Your task to perform on an android device: Search for rayovac triple a on newegg.com, select the first entry, add it to the cart, then select checkout. Image 0: 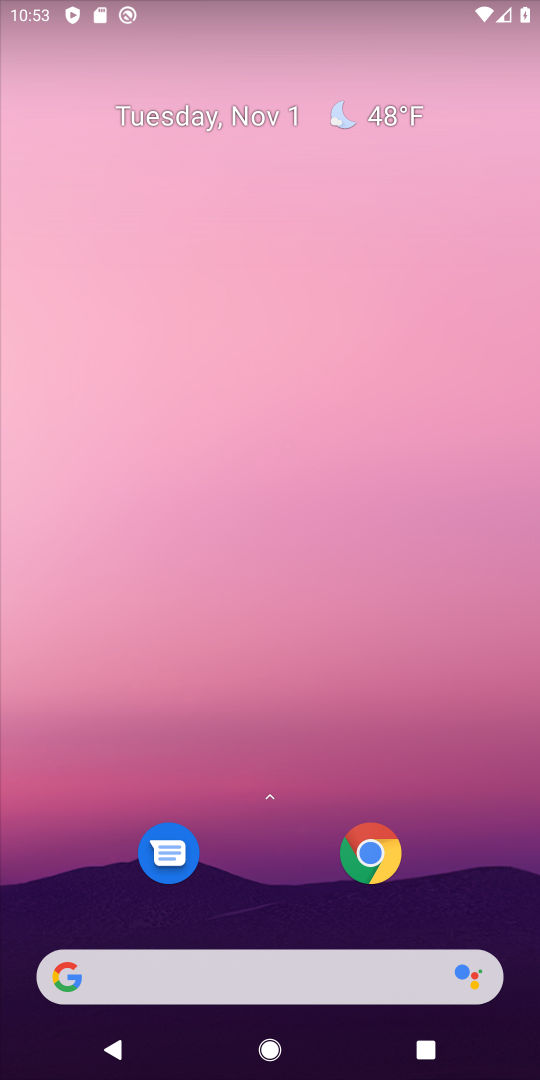
Step 0: drag from (321, 1030) to (289, 53)
Your task to perform on an android device: Search for rayovac triple a on newegg.com, select the first entry, add it to the cart, then select checkout. Image 1: 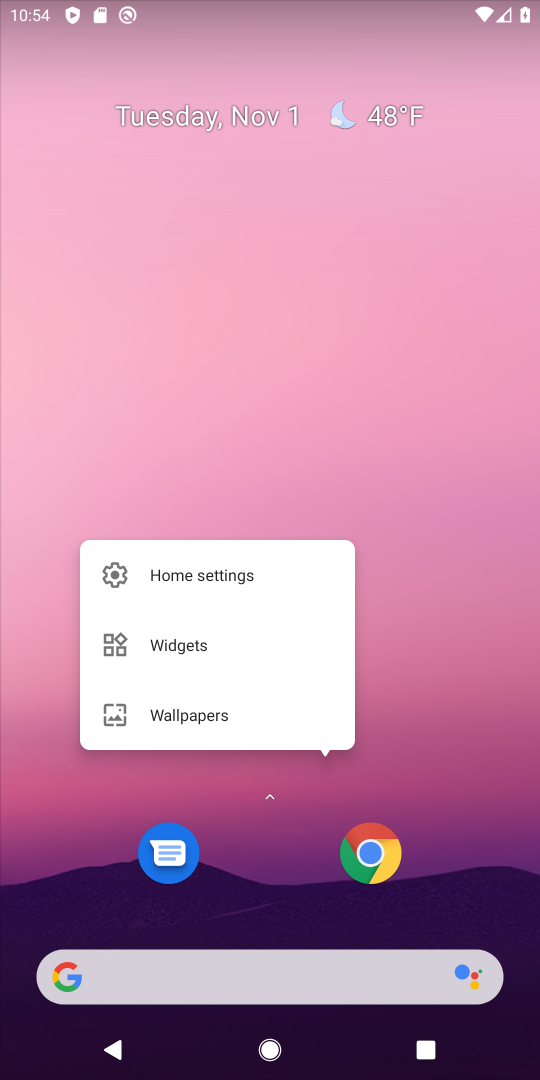
Step 1: click (429, 643)
Your task to perform on an android device: Search for rayovac triple a on newegg.com, select the first entry, add it to the cart, then select checkout. Image 2: 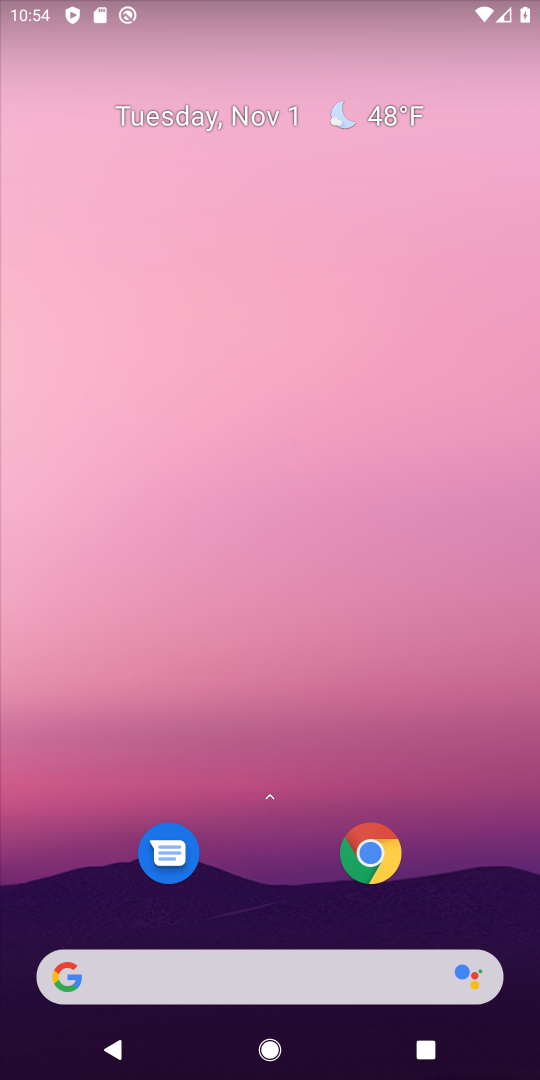
Step 2: drag from (343, 1025) to (345, 360)
Your task to perform on an android device: Search for rayovac triple a on newegg.com, select the first entry, add it to the cart, then select checkout. Image 3: 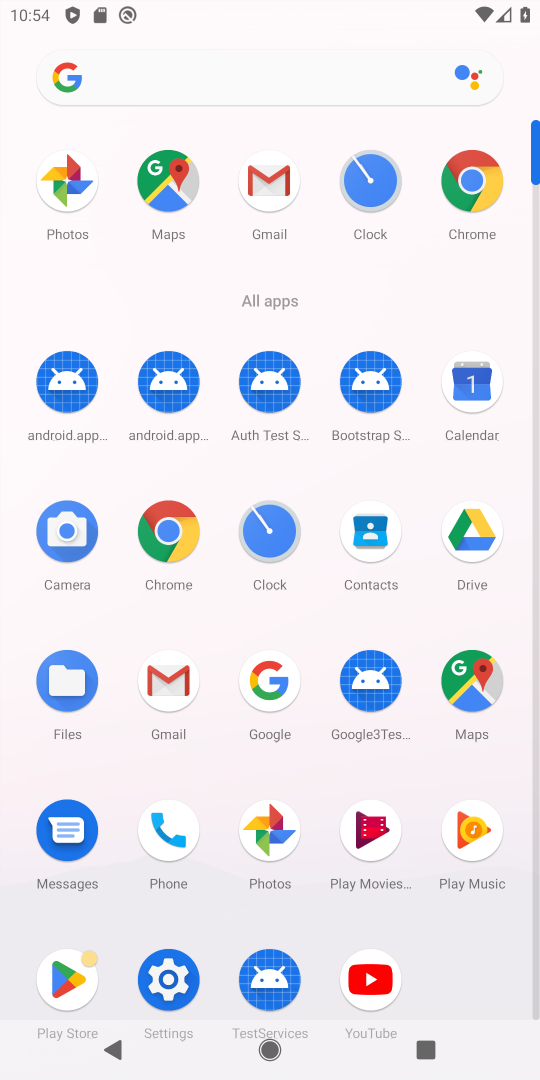
Step 3: click (157, 533)
Your task to perform on an android device: Search for rayovac triple a on newegg.com, select the first entry, add it to the cart, then select checkout. Image 4: 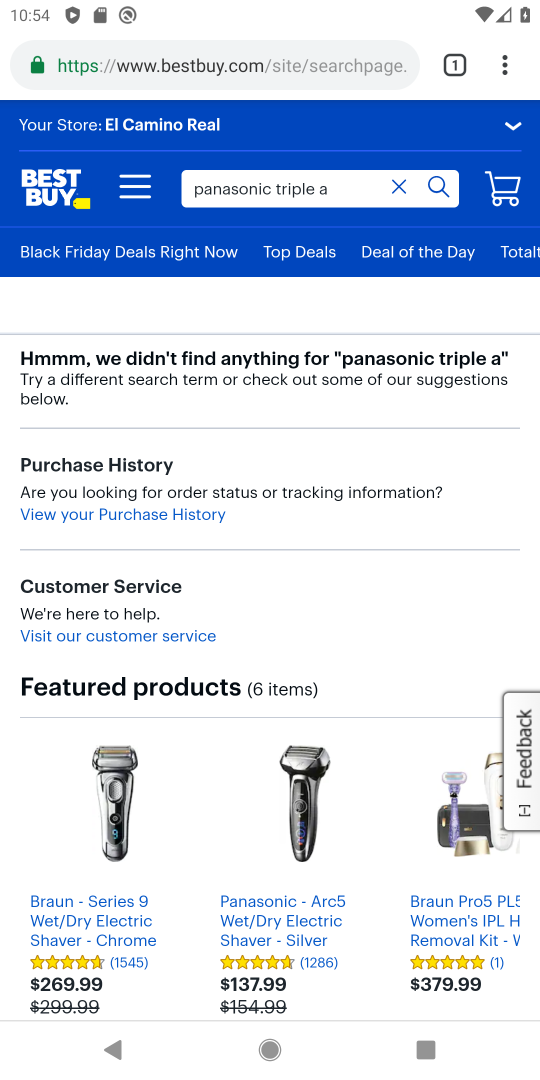
Step 4: click (306, 75)
Your task to perform on an android device: Search for rayovac triple a on newegg.com, select the first entry, add it to the cart, then select checkout. Image 5: 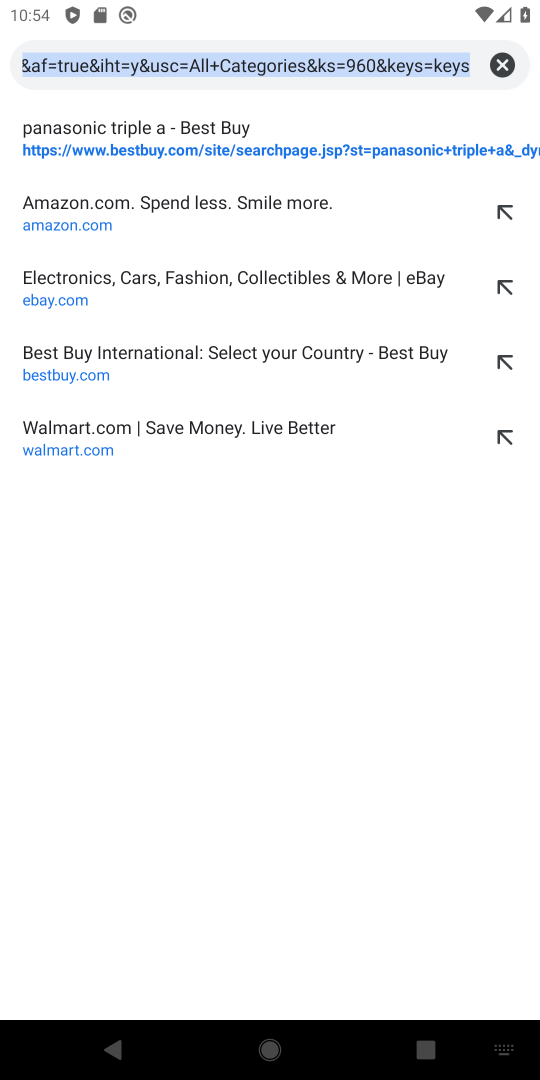
Step 5: click (499, 57)
Your task to perform on an android device: Search for rayovac triple a on newegg.com, select the first entry, add it to the cart, then select checkout. Image 6: 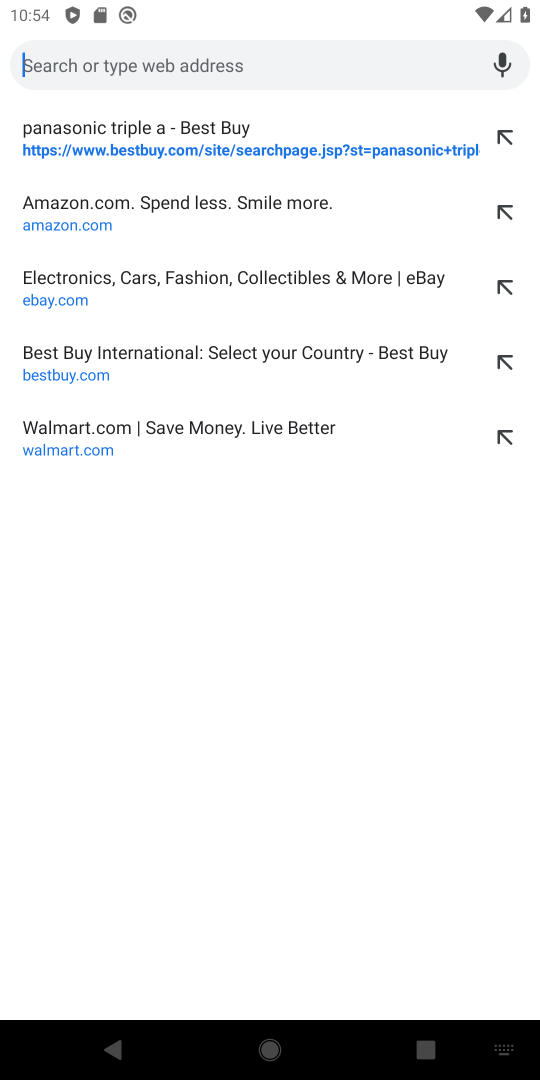
Step 6: type "newegg.com"
Your task to perform on an android device: Search for rayovac triple a on newegg.com, select the first entry, add it to the cart, then select checkout. Image 7: 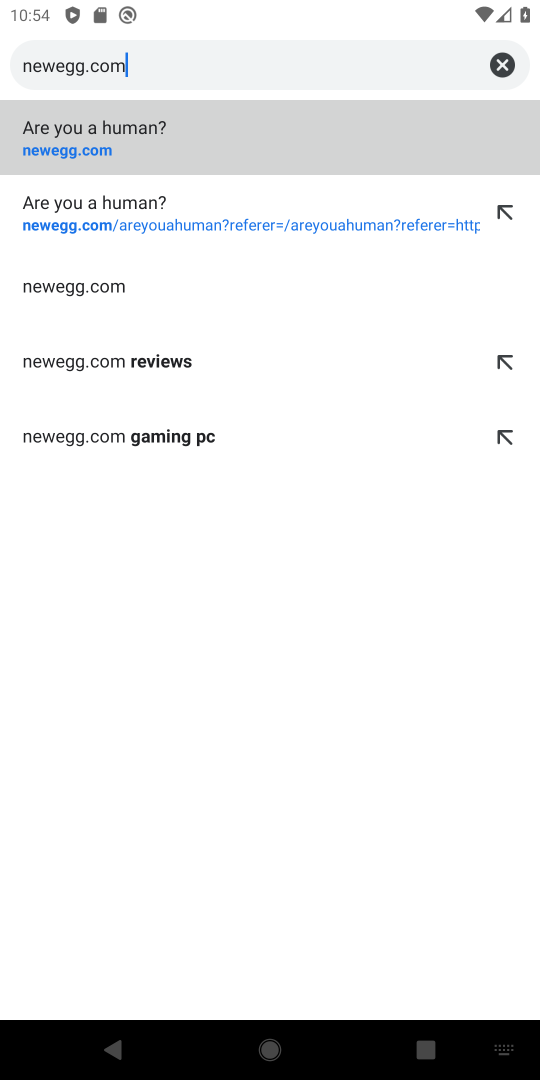
Step 7: click (64, 152)
Your task to perform on an android device: Search for rayovac triple a on newegg.com, select the first entry, add it to the cart, then select checkout. Image 8: 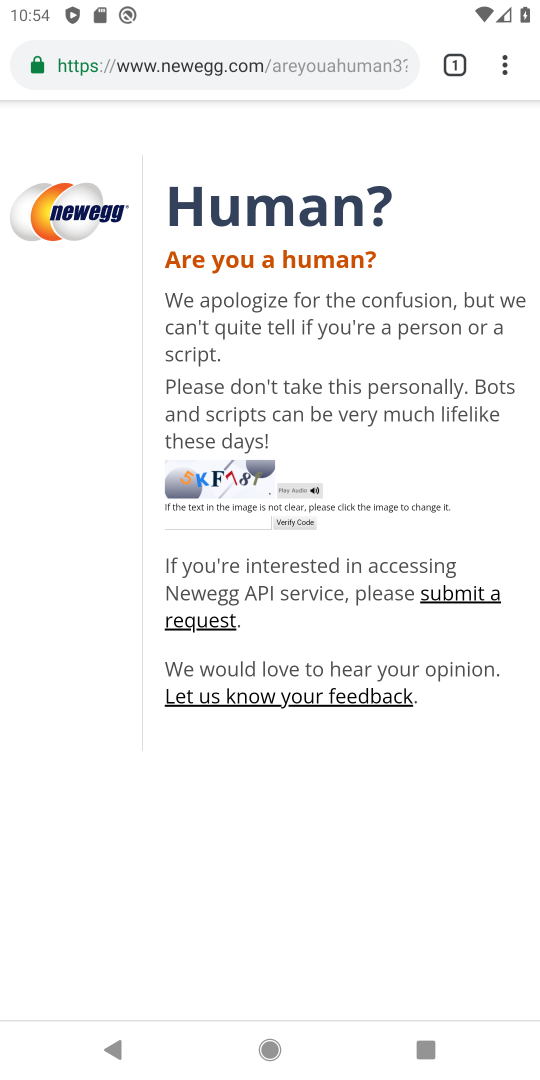
Step 8: task complete